Your task to perform on an android device: change notifications settings Image 0: 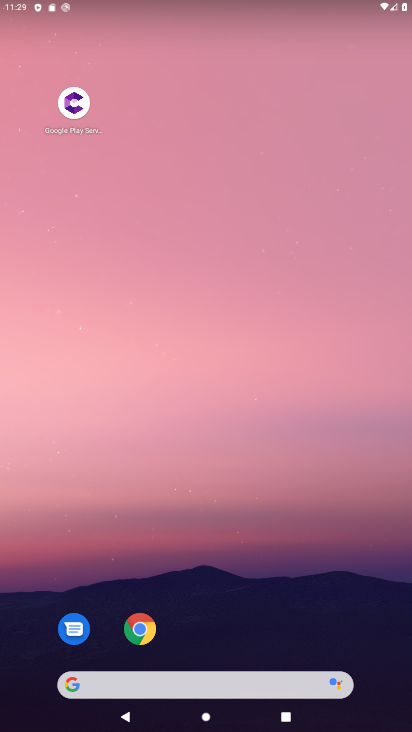
Step 0: click (282, 405)
Your task to perform on an android device: change notifications settings Image 1: 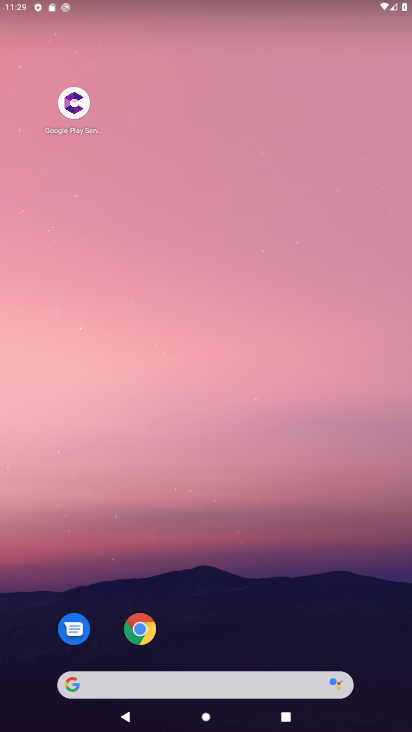
Step 1: drag from (220, 621) to (236, 477)
Your task to perform on an android device: change notifications settings Image 2: 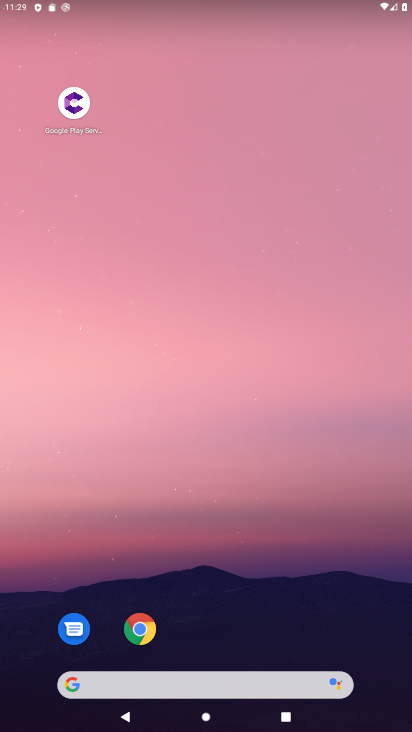
Step 2: drag from (225, 657) to (244, 234)
Your task to perform on an android device: change notifications settings Image 3: 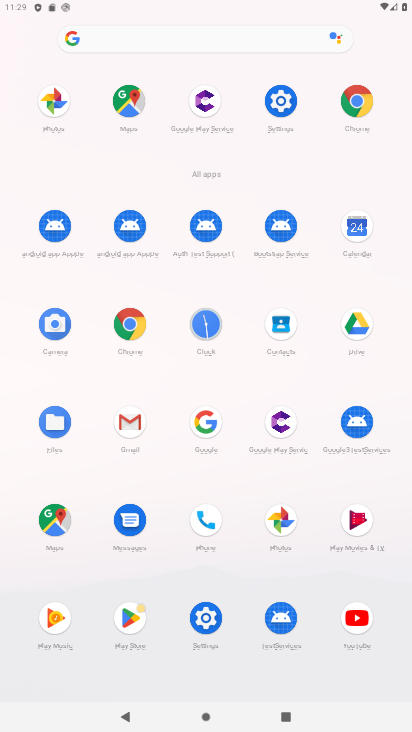
Step 3: click (201, 627)
Your task to perform on an android device: change notifications settings Image 4: 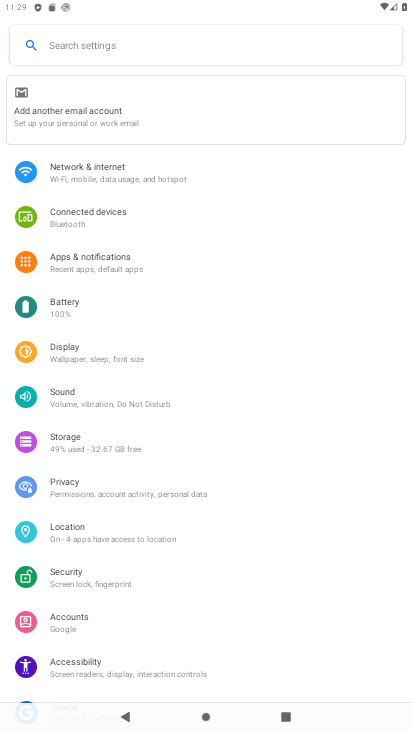
Step 4: click (117, 263)
Your task to perform on an android device: change notifications settings Image 5: 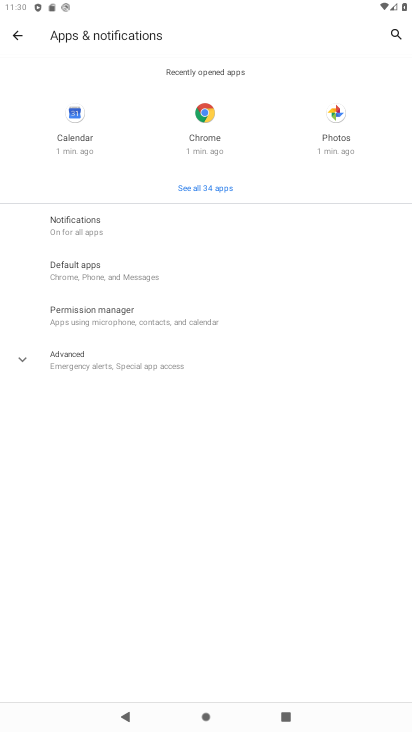
Step 5: click (82, 217)
Your task to perform on an android device: change notifications settings Image 6: 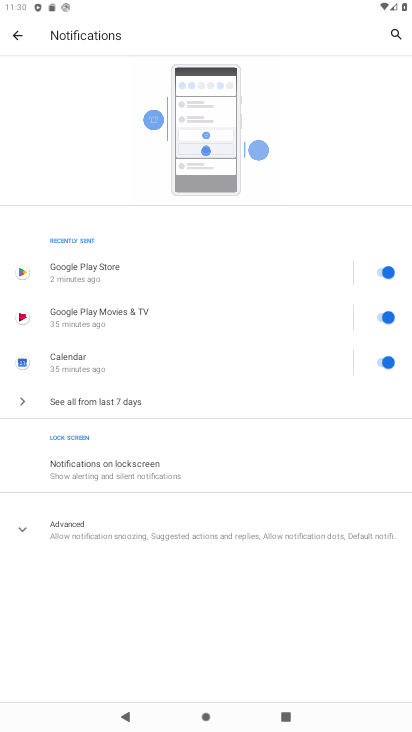
Step 6: click (123, 404)
Your task to perform on an android device: change notifications settings Image 7: 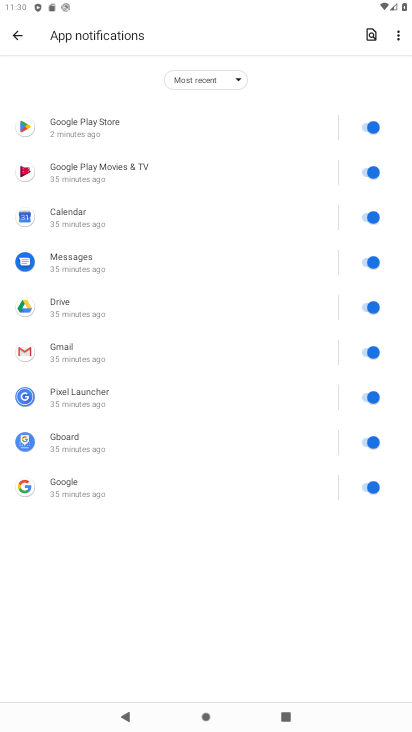
Step 7: click (357, 128)
Your task to perform on an android device: change notifications settings Image 8: 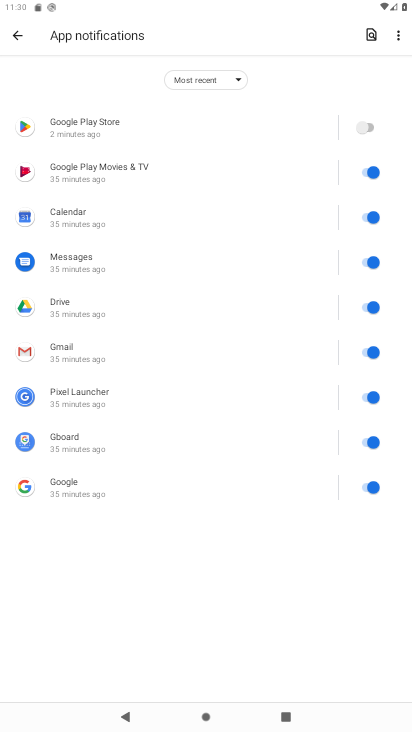
Step 8: click (362, 164)
Your task to perform on an android device: change notifications settings Image 9: 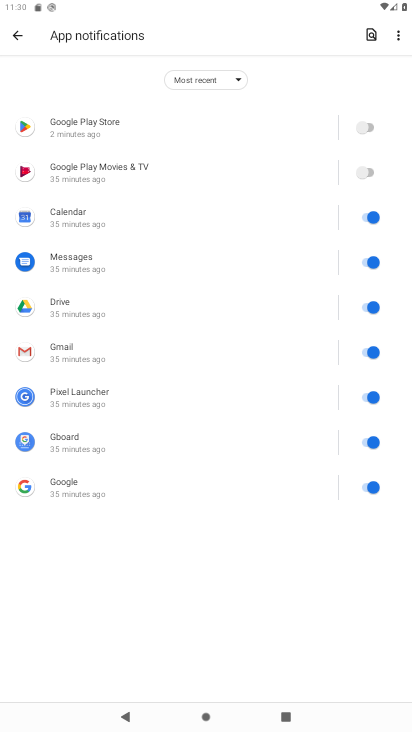
Step 9: click (355, 217)
Your task to perform on an android device: change notifications settings Image 10: 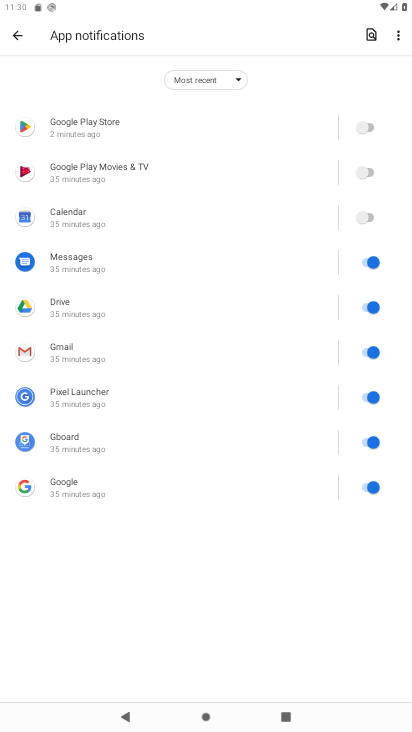
Step 10: click (352, 254)
Your task to perform on an android device: change notifications settings Image 11: 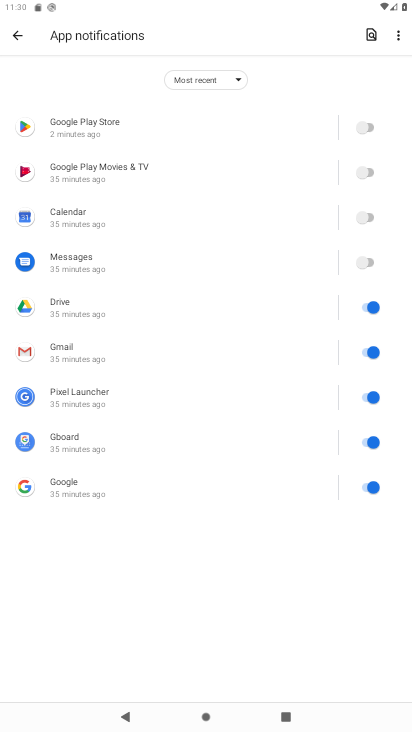
Step 11: click (361, 301)
Your task to perform on an android device: change notifications settings Image 12: 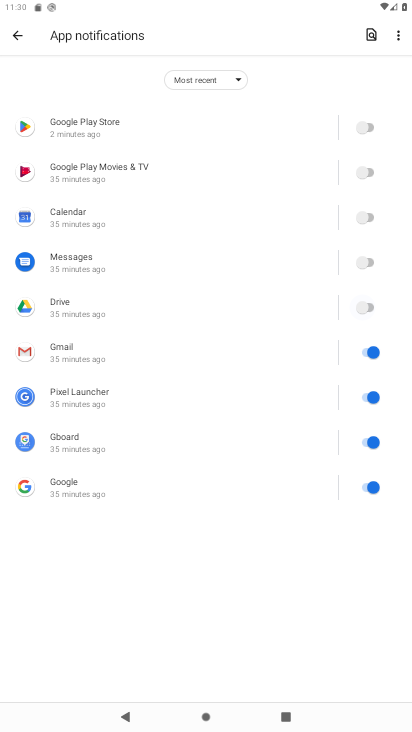
Step 12: click (358, 349)
Your task to perform on an android device: change notifications settings Image 13: 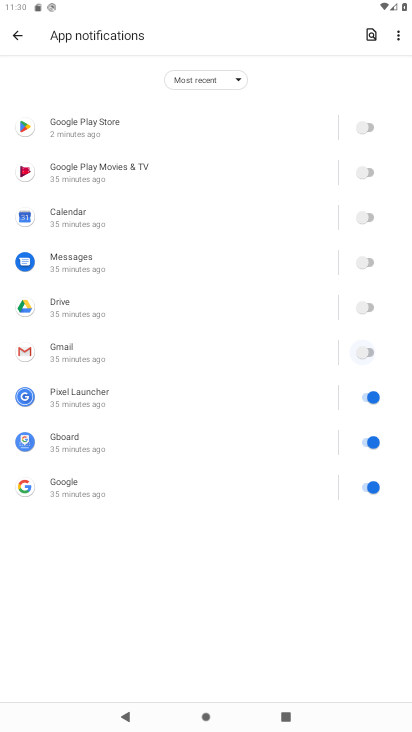
Step 13: click (350, 401)
Your task to perform on an android device: change notifications settings Image 14: 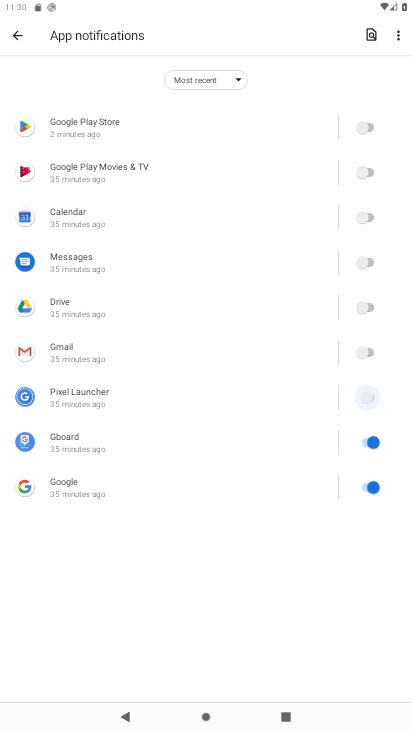
Step 14: drag from (354, 449) to (356, 493)
Your task to perform on an android device: change notifications settings Image 15: 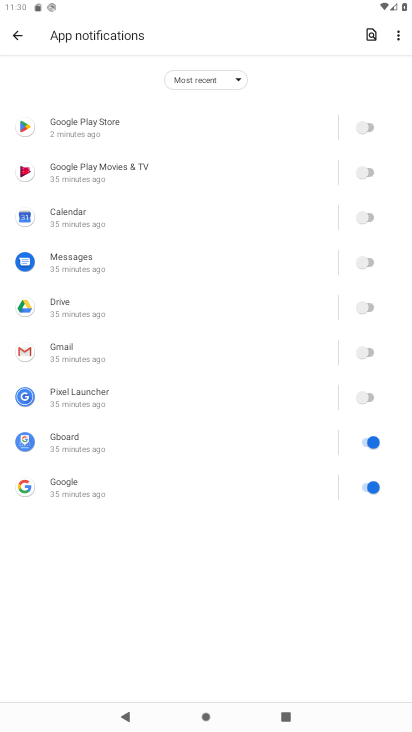
Step 15: click (350, 481)
Your task to perform on an android device: change notifications settings Image 16: 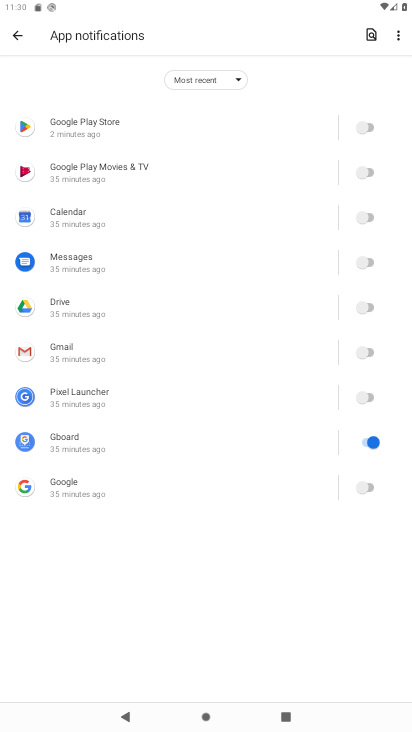
Step 16: click (352, 451)
Your task to perform on an android device: change notifications settings Image 17: 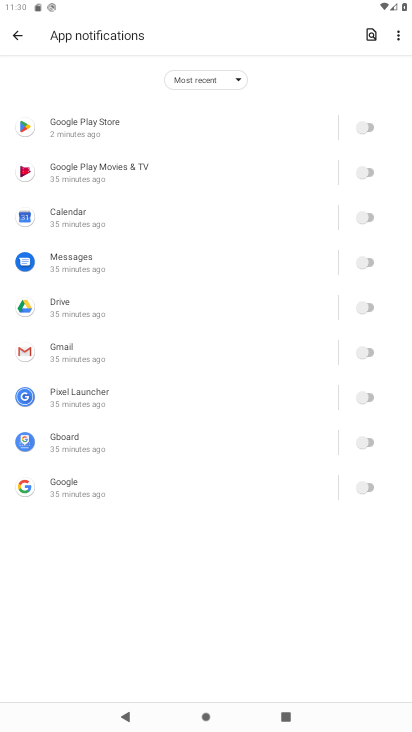
Step 17: task complete